Your task to perform on an android device: change the clock display to digital Image 0: 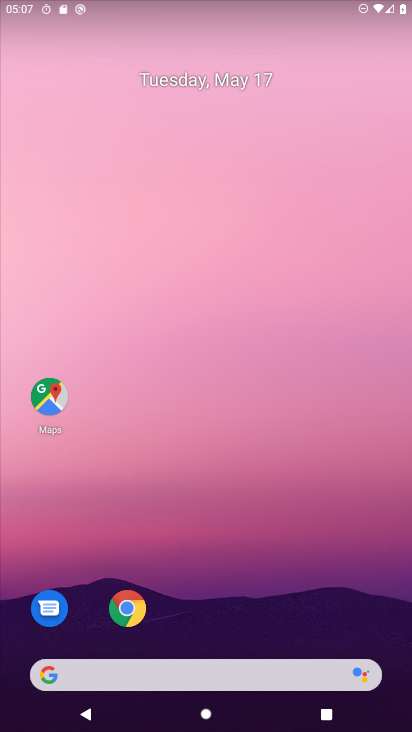
Step 0: drag from (178, 657) to (170, 229)
Your task to perform on an android device: change the clock display to digital Image 1: 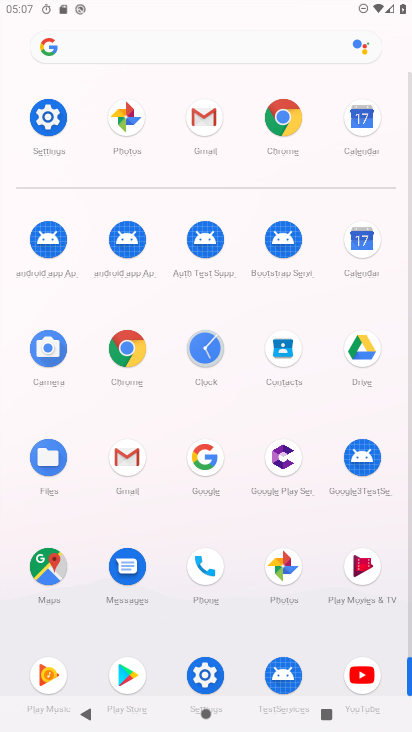
Step 1: click (202, 350)
Your task to perform on an android device: change the clock display to digital Image 2: 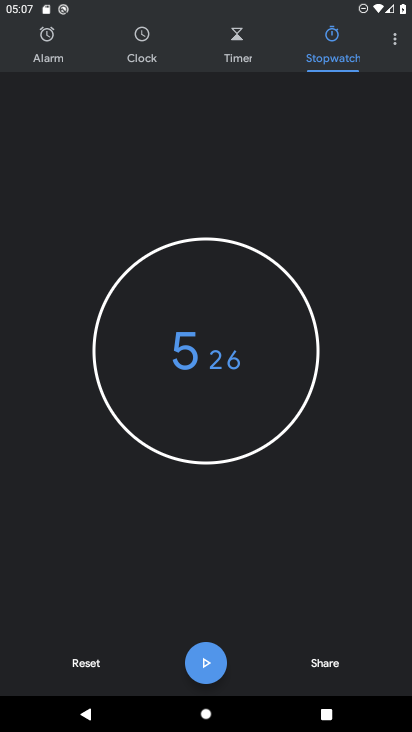
Step 2: click (398, 42)
Your task to perform on an android device: change the clock display to digital Image 3: 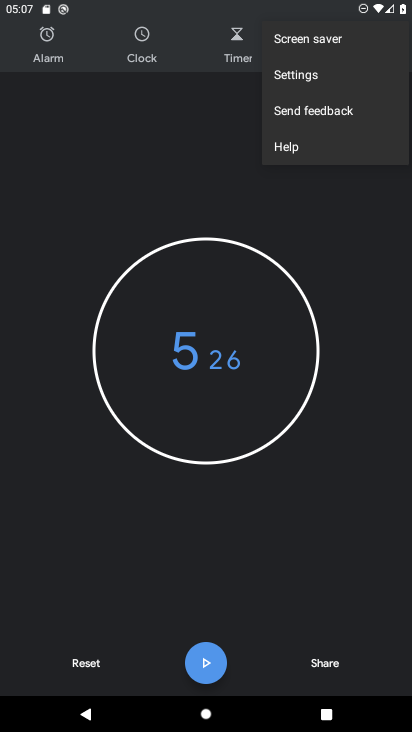
Step 3: click (293, 77)
Your task to perform on an android device: change the clock display to digital Image 4: 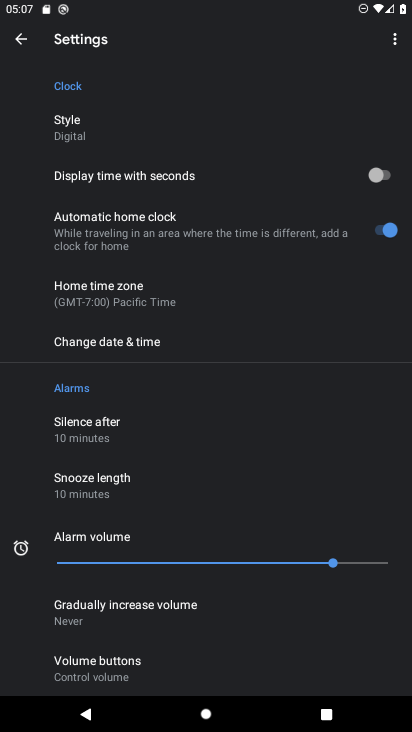
Step 4: click (70, 140)
Your task to perform on an android device: change the clock display to digital Image 5: 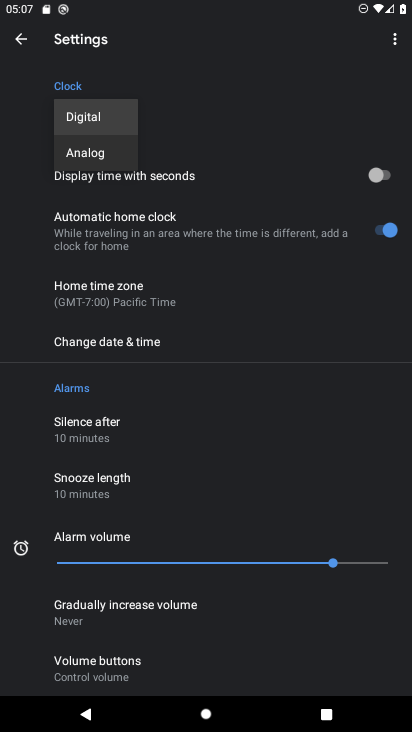
Step 5: click (90, 126)
Your task to perform on an android device: change the clock display to digital Image 6: 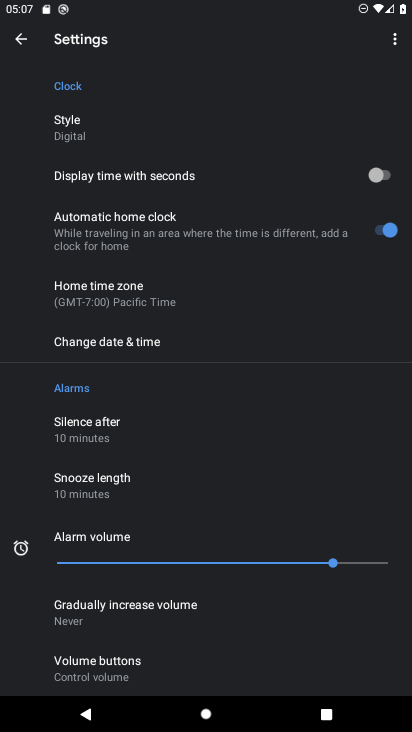
Step 6: task complete